Your task to perform on an android device: empty trash in the gmail app Image 0: 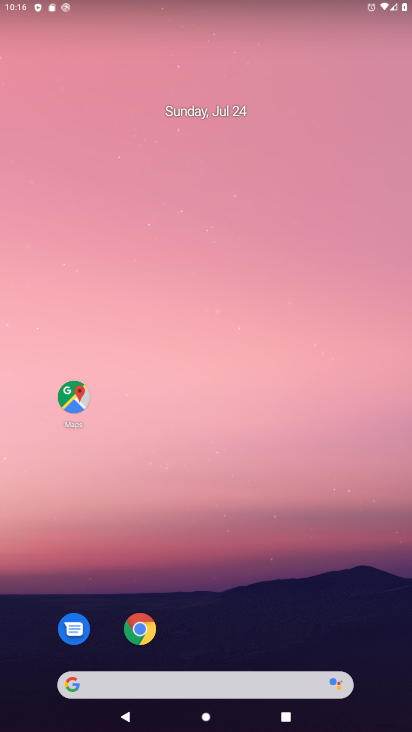
Step 0: drag from (178, 681) to (351, 231)
Your task to perform on an android device: empty trash in the gmail app Image 1: 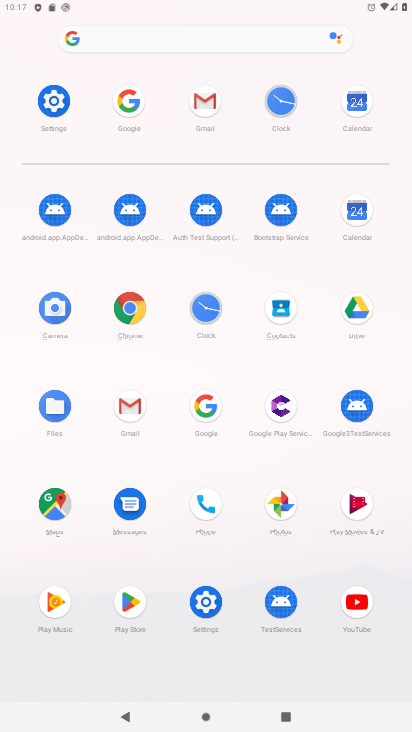
Step 1: click (205, 99)
Your task to perform on an android device: empty trash in the gmail app Image 2: 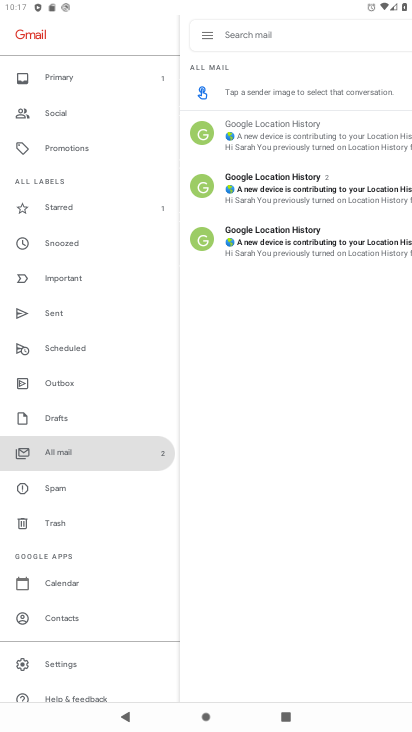
Step 2: click (55, 523)
Your task to perform on an android device: empty trash in the gmail app Image 3: 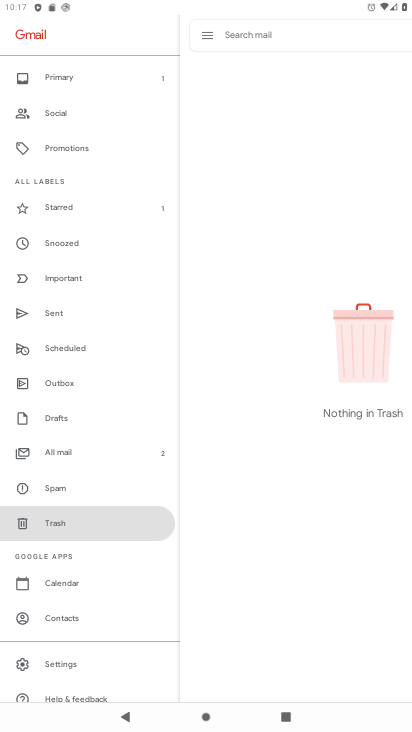
Step 3: task complete